Your task to perform on an android device: Open network settings Image 0: 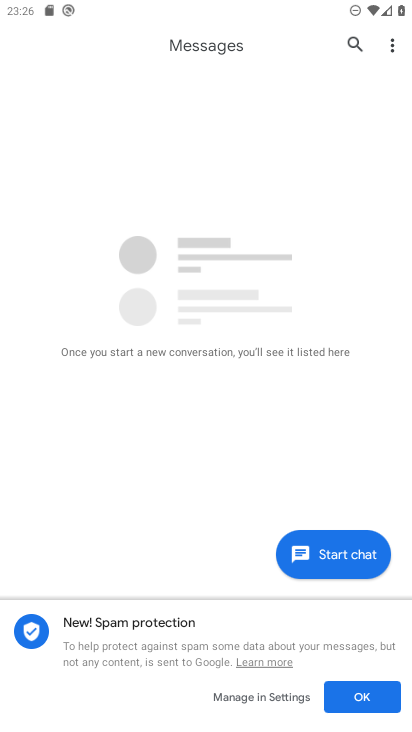
Step 0: press home button
Your task to perform on an android device: Open network settings Image 1: 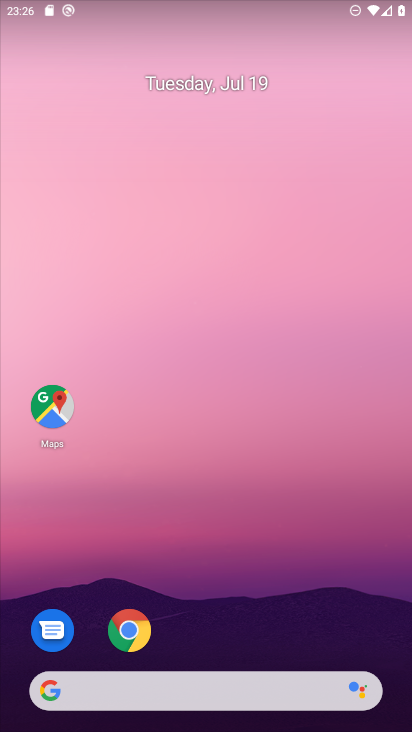
Step 1: drag from (228, 631) to (194, 175)
Your task to perform on an android device: Open network settings Image 2: 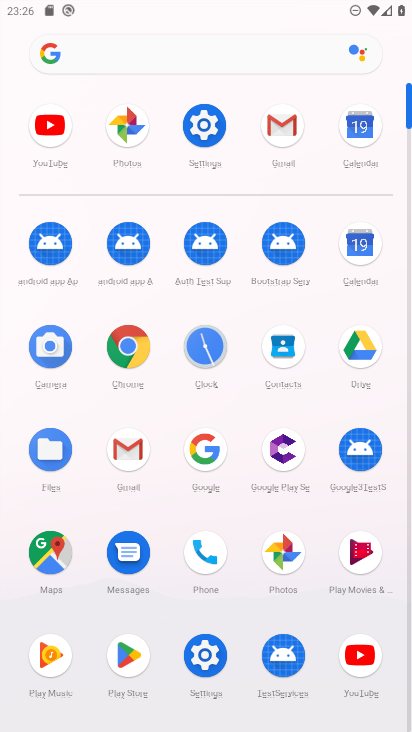
Step 2: click (212, 147)
Your task to perform on an android device: Open network settings Image 3: 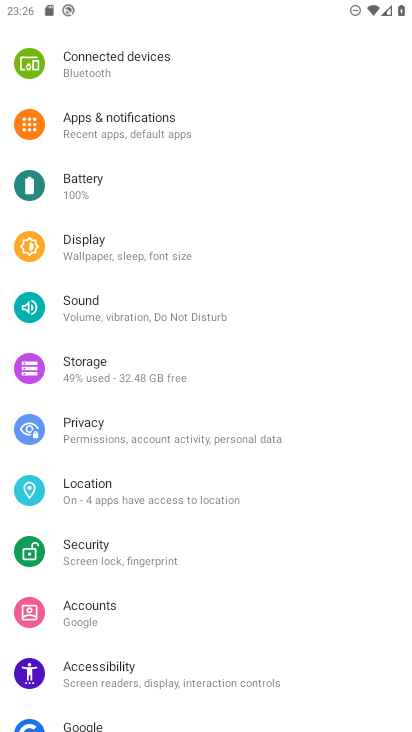
Step 3: drag from (210, 154) to (223, 488)
Your task to perform on an android device: Open network settings Image 4: 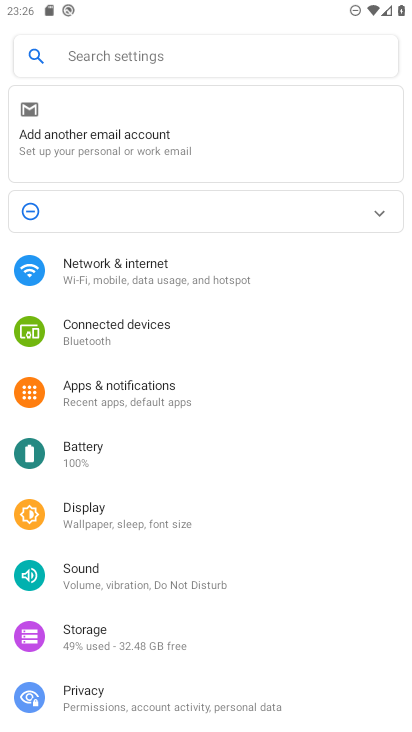
Step 4: click (159, 267)
Your task to perform on an android device: Open network settings Image 5: 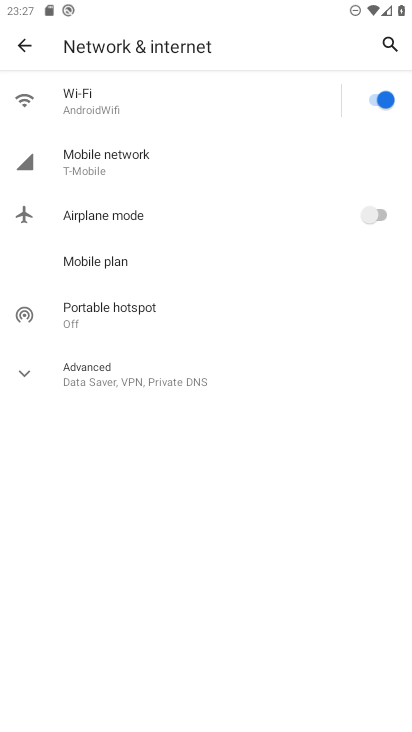
Step 5: task complete